Your task to perform on an android device: change alarm snooze length Image 0: 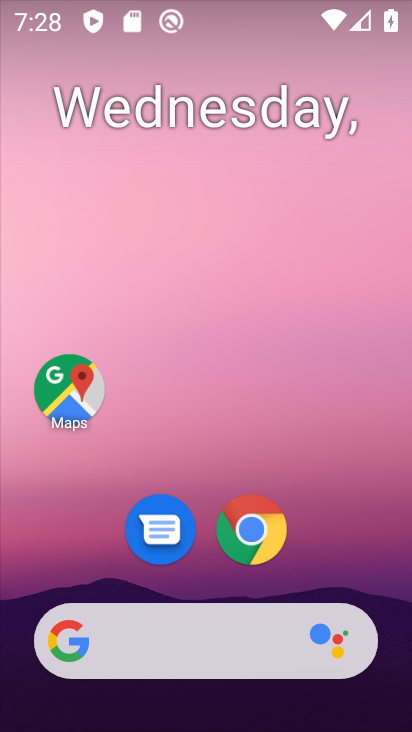
Step 0: drag from (202, 467) to (223, 32)
Your task to perform on an android device: change alarm snooze length Image 1: 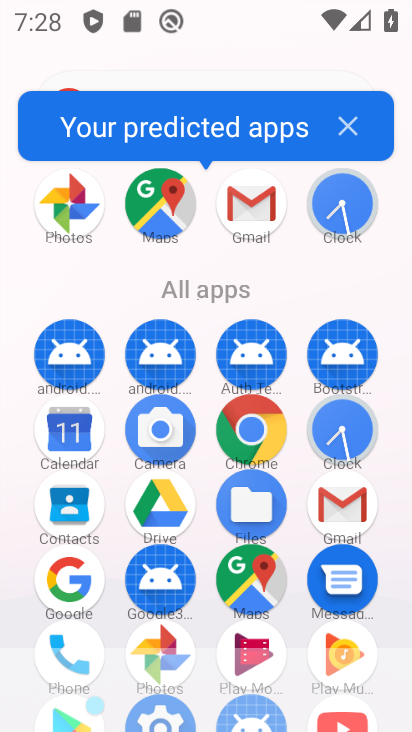
Step 1: click (331, 196)
Your task to perform on an android device: change alarm snooze length Image 2: 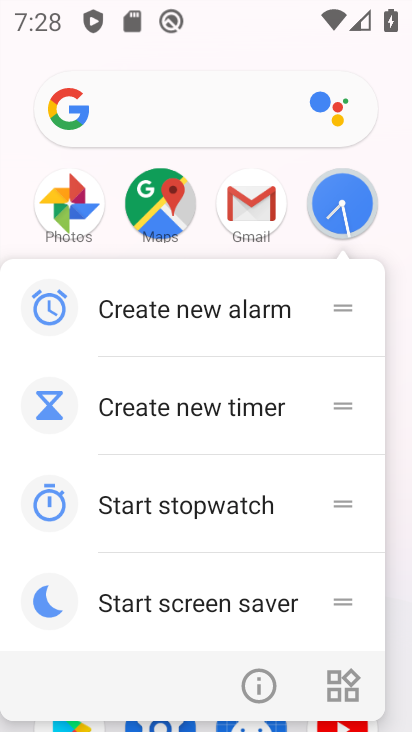
Step 2: click (344, 191)
Your task to perform on an android device: change alarm snooze length Image 3: 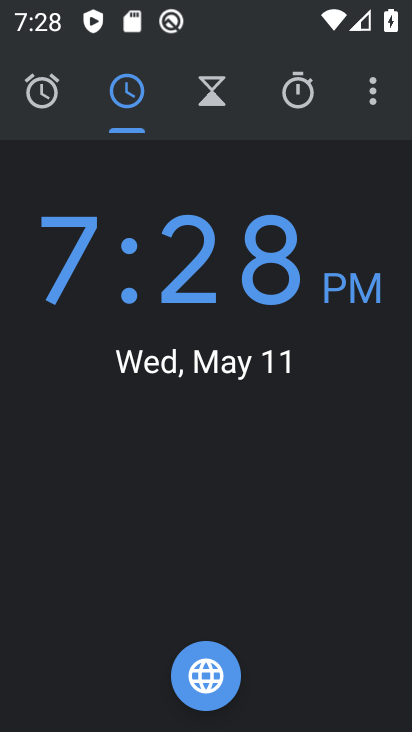
Step 3: click (376, 102)
Your task to perform on an android device: change alarm snooze length Image 4: 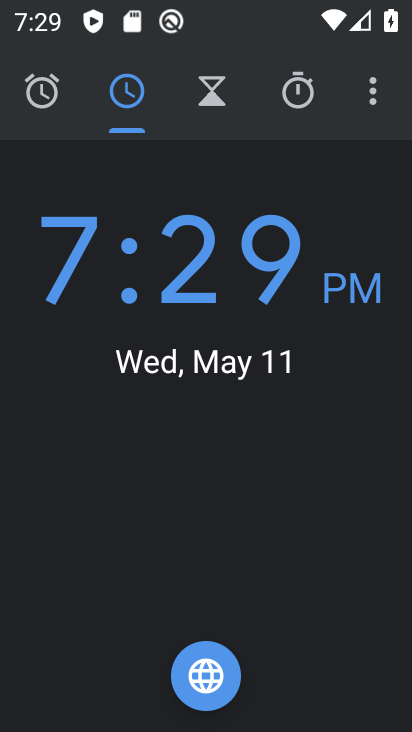
Step 4: click (370, 90)
Your task to perform on an android device: change alarm snooze length Image 5: 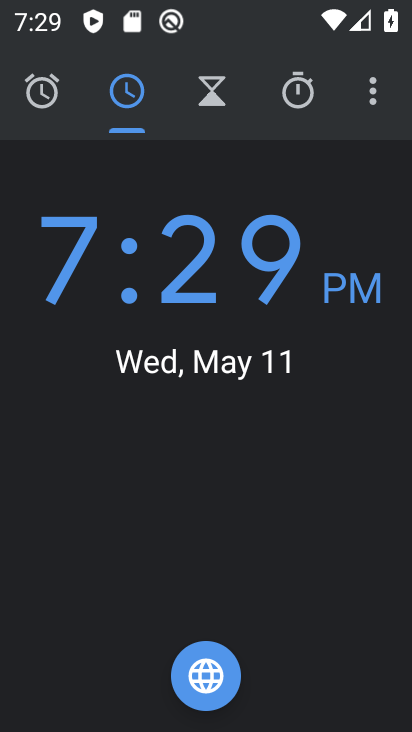
Step 5: click (370, 93)
Your task to perform on an android device: change alarm snooze length Image 6: 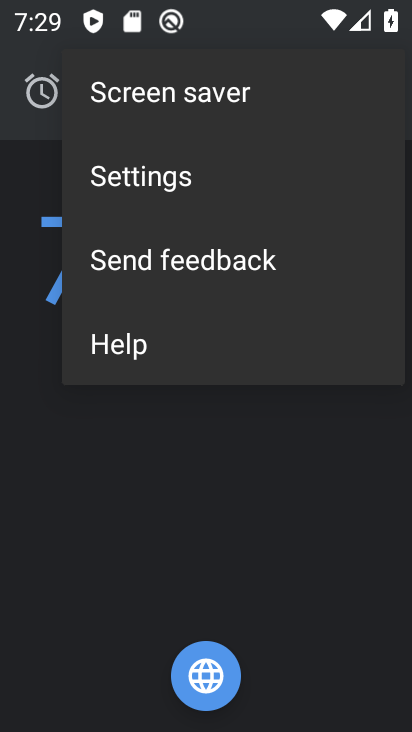
Step 6: click (262, 176)
Your task to perform on an android device: change alarm snooze length Image 7: 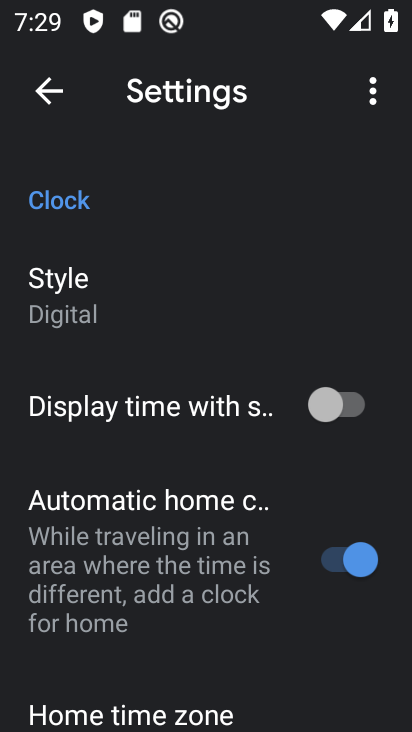
Step 7: drag from (213, 640) to (250, 190)
Your task to perform on an android device: change alarm snooze length Image 8: 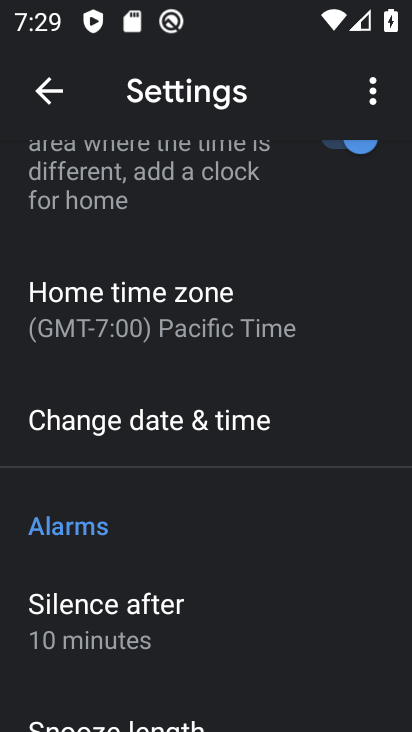
Step 8: drag from (210, 628) to (256, 302)
Your task to perform on an android device: change alarm snooze length Image 9: 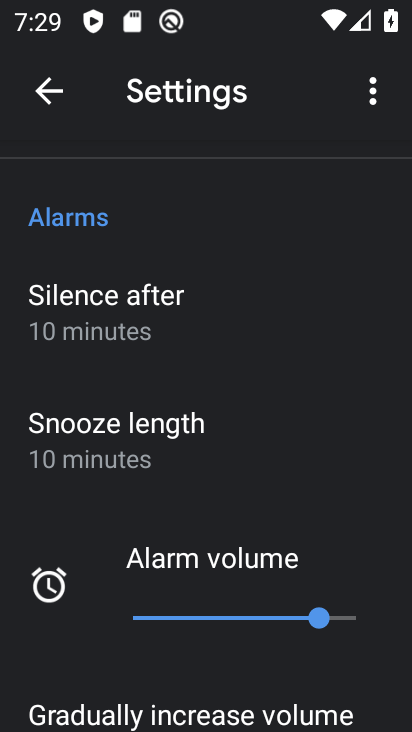
Step 9: click (175, 453)
Your task to perform on an android device: change alarm snooze length Image 10: 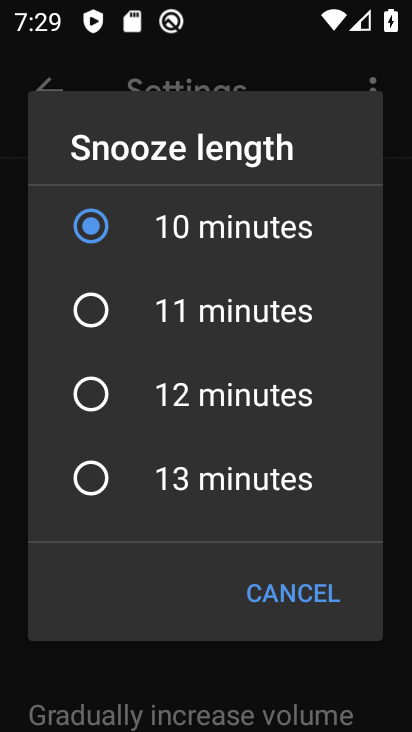
Step 10: click (88, 395)
Your task to perform on an android device: change alarm snooze length Image 11: 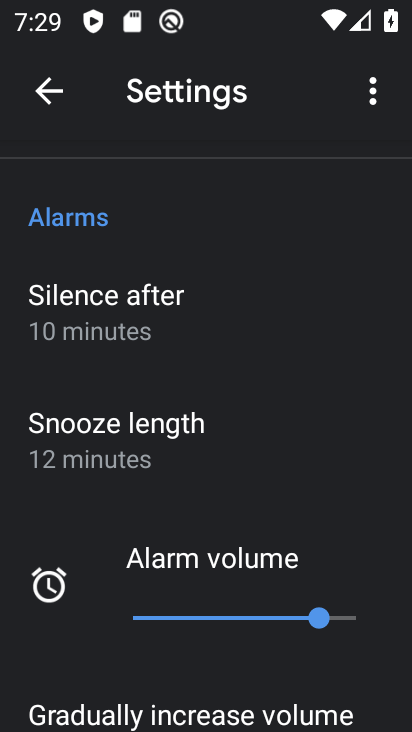
Step 11: task complete